Your task to perform on an android device: Open Chrome and go to settings Image 0: 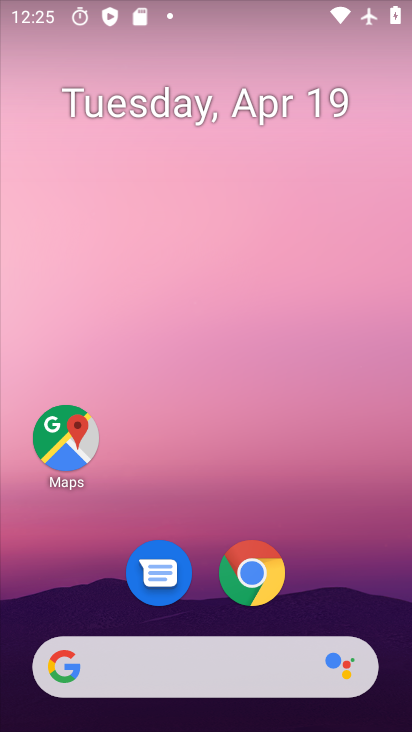
Step 0: click (237, 581)
Your task to perform on an android device: Open Chrome and go to settings Image 1: 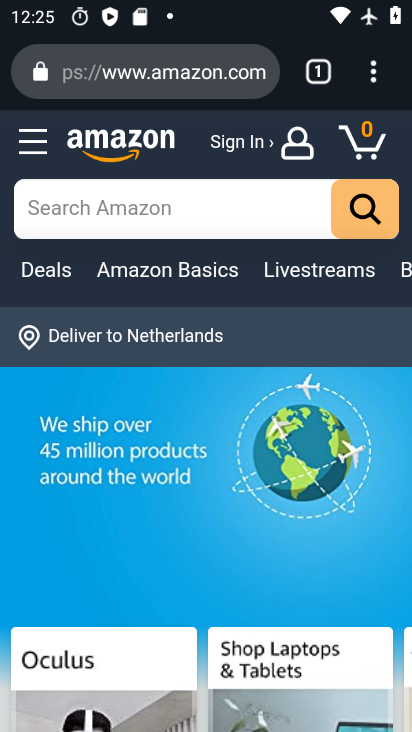
Step 1: task complete